Your task to perform on an android device: Open Android settings Image 0: 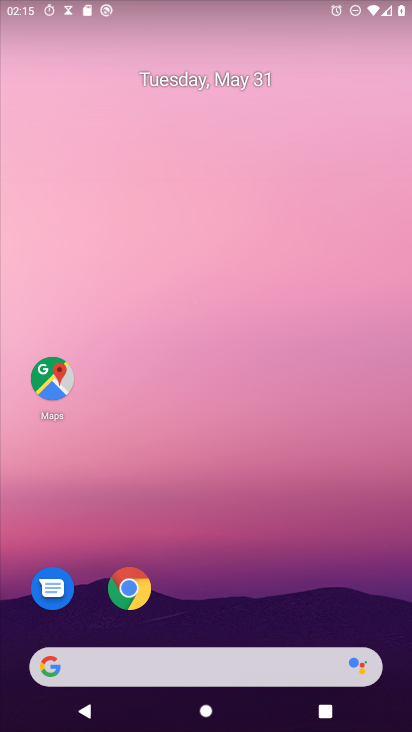
Step 0: drag from (359, 672) to (226, 8)
Your task to perform on an android device: Open Android settings Image 1: 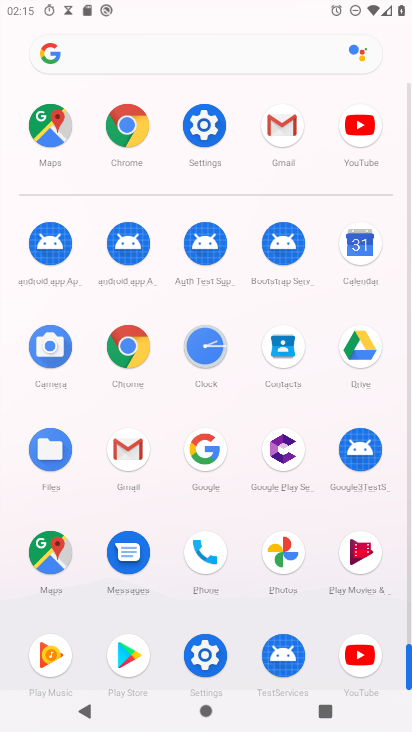
Step 1: click (208, 137)
Your task to perform on an android device: Open Android settings Image 2: 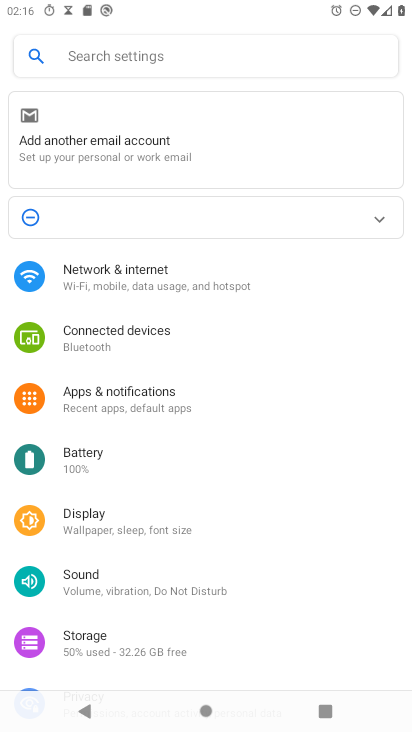
Step 2: press home button
Your task to perform on an android device: Open Android settings Image 3: 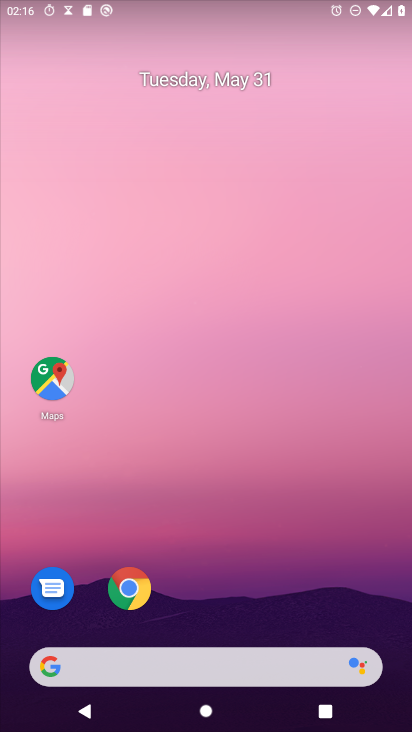
Step 3: drag from (242, 643) to (244, 5)
Your task to perform on an android device: Open Android settings Image 4: 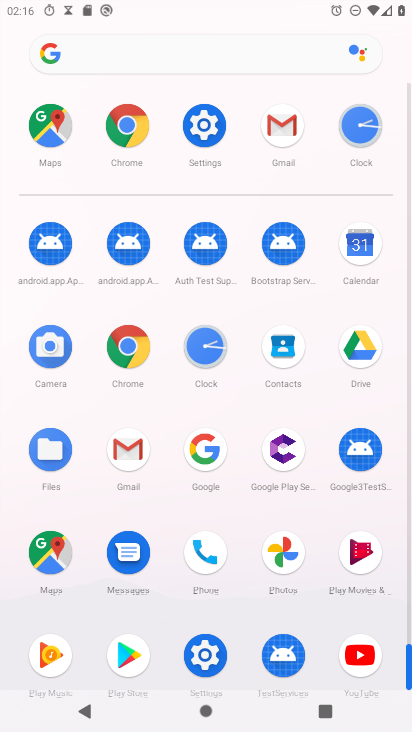
Step 4: click (193, 128)
Your task to perform on an android device: Open Android settings Image 5: 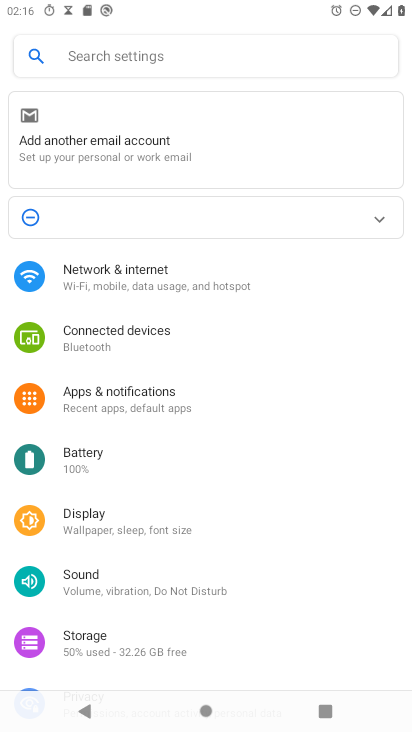
Step 5: drag from (265, 629) to (237, 162)
Your task to perform on an android device: Open Android settings Image 6: 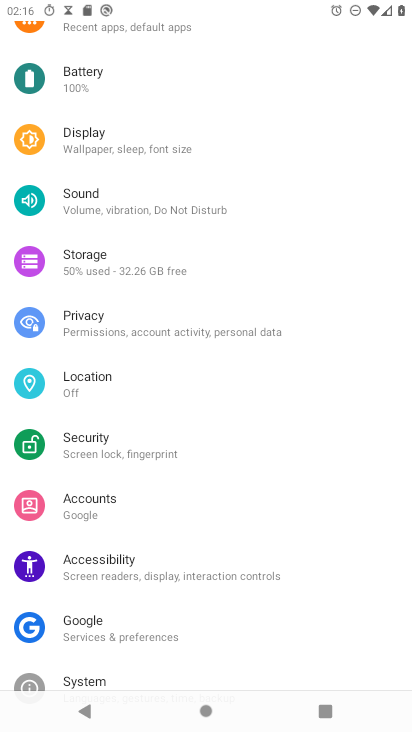
Step 6: drag from (230, 202) to (266, 730)
Your task to perform on an android device: Open Android settings Image 7: 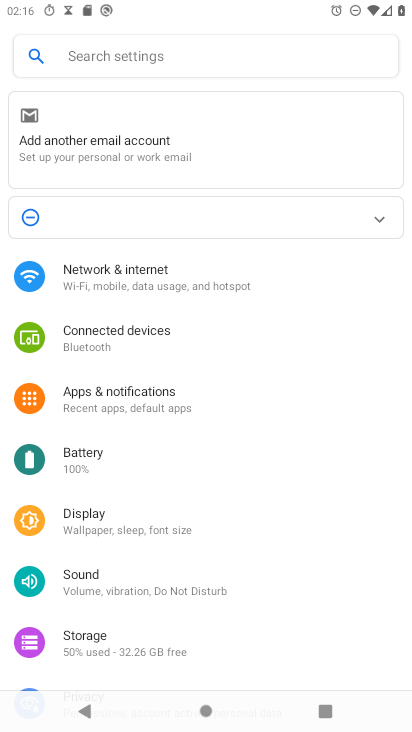
Step 7: drag from (224, 672) to (226, 76)
Your task to perform on an android device: Open Android settings Image 8: 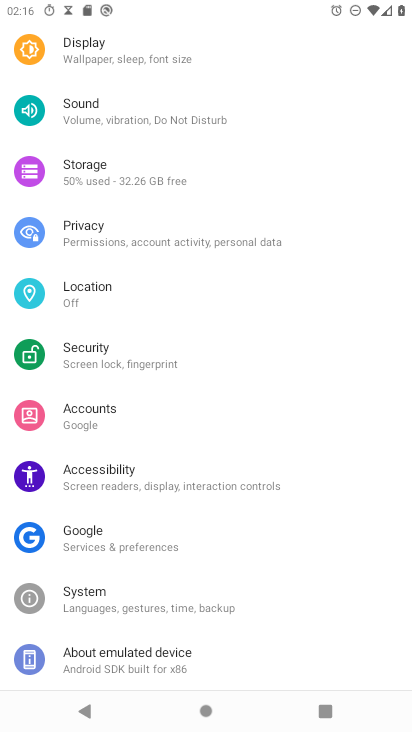
Step 8: click (223, 657)
Your task to perform on an android device: Open Android settings Image 9: 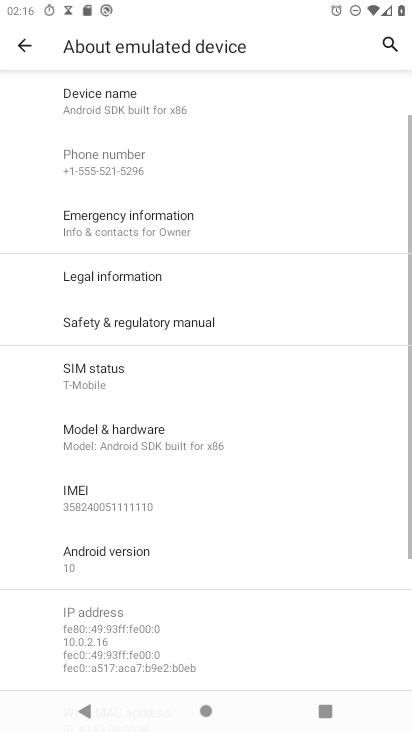
Step 9: task complete